Your task to perform on an android device: open wifi settings Image 0: 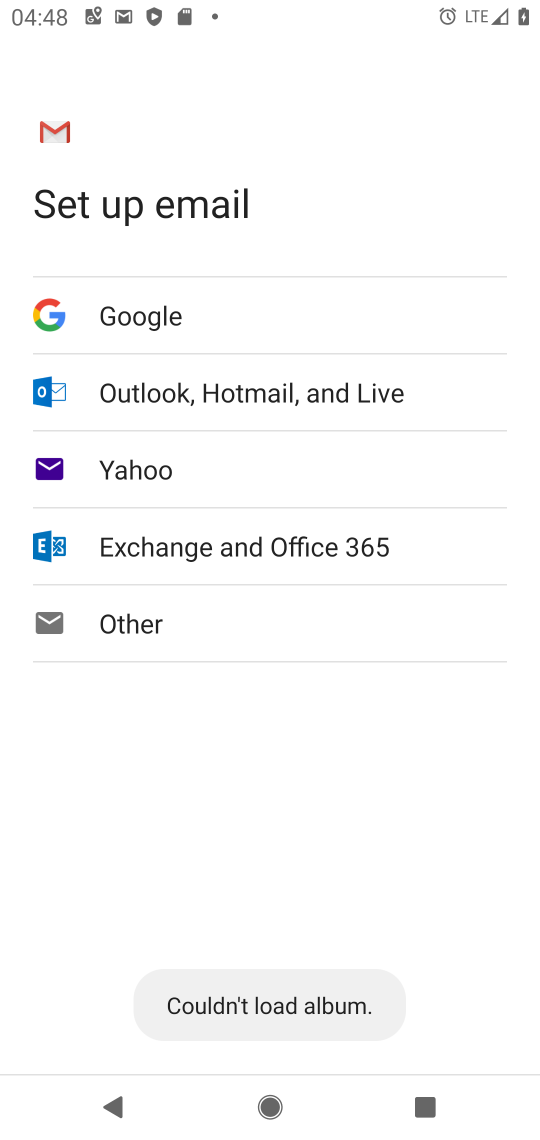
Step 0: press back button
Your task to perform on an android device: open wifi settings Image 1: 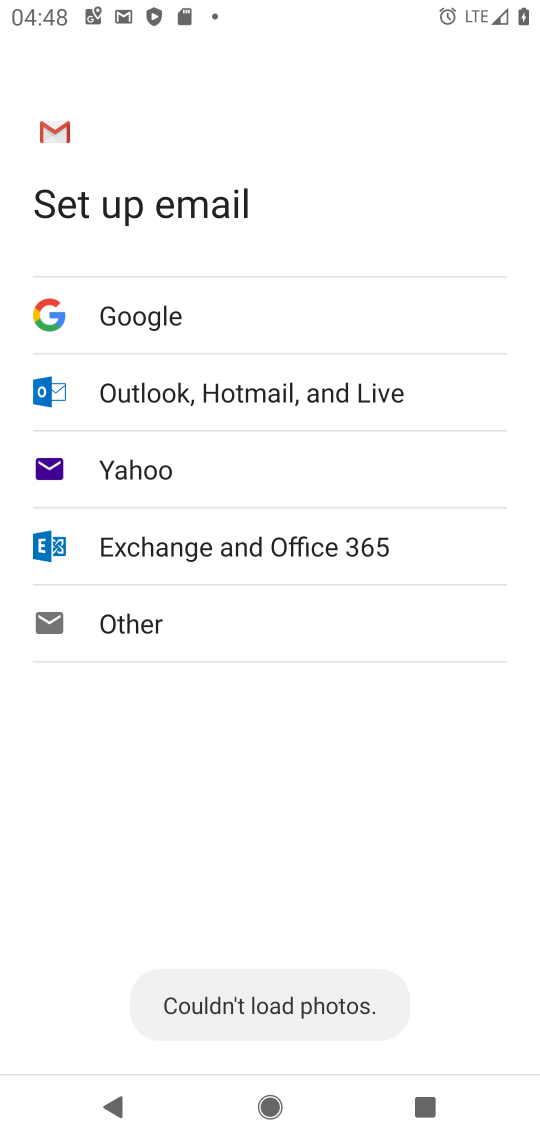
Step 1: press back button
Your task to perform on an android device: open wifi settings Image 2: 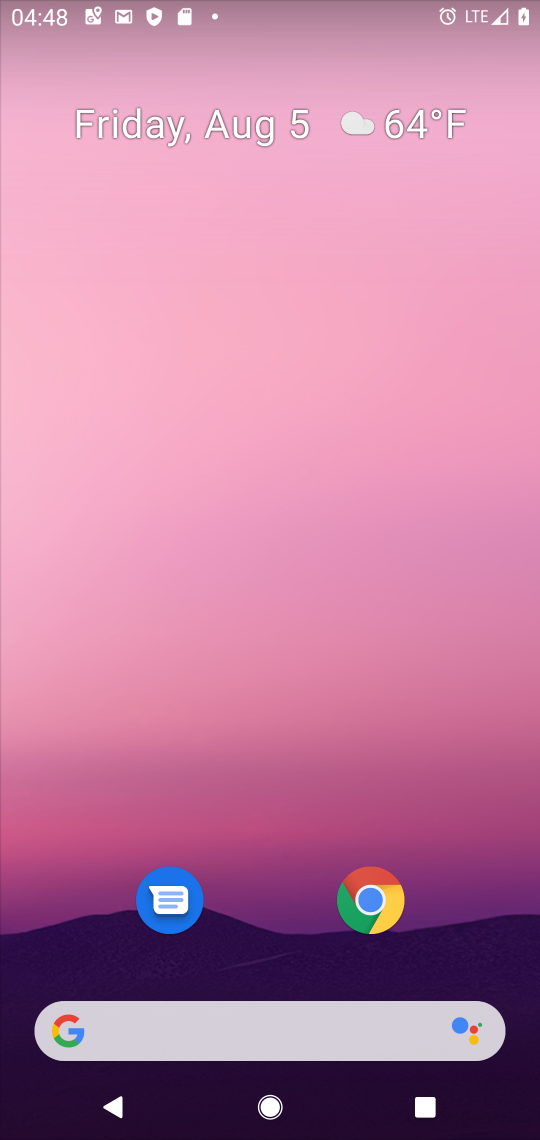
Step 2: press back button
Your task to perform on an android device: open wifi settings Image 3: 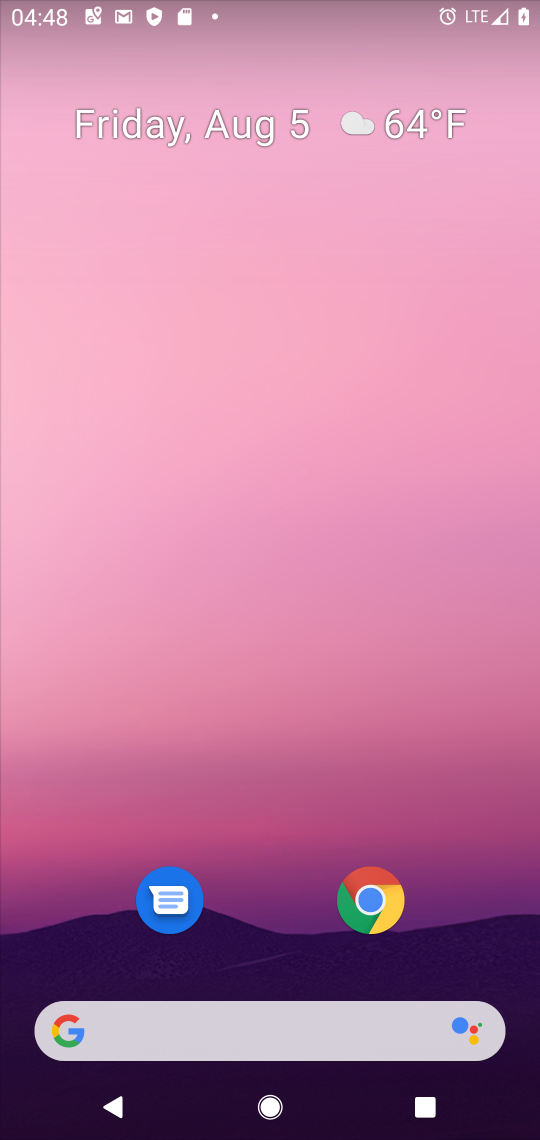
Step 3: drag from (143, 14) to (175, 886)
Your task to perform on an android device: open wifi settings Image 4: 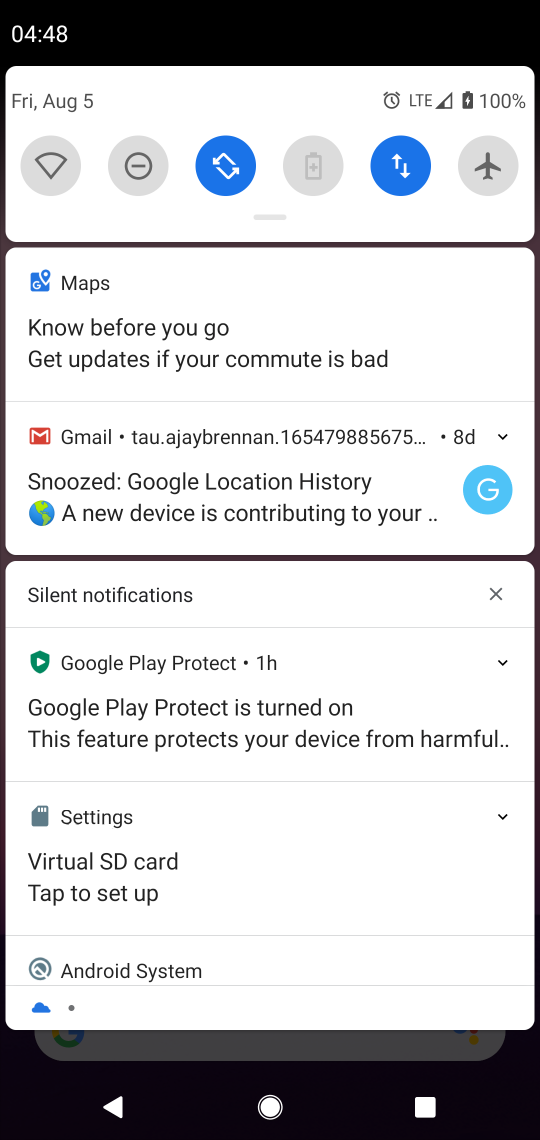
Step 4: click (47, 172)
Your task to perform on an android device: open wifi settings Image 5: 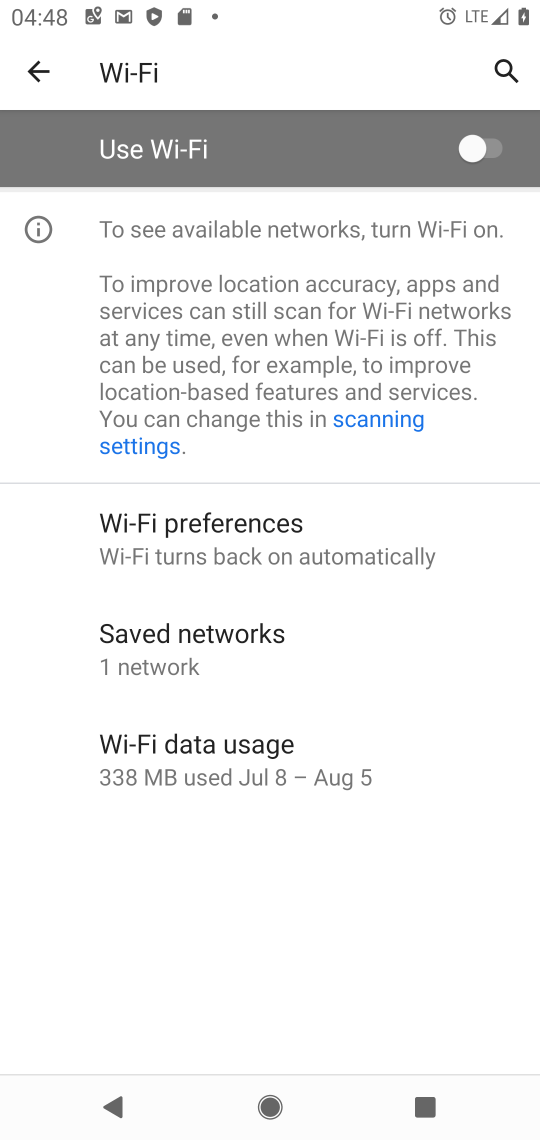
Step 5: task complete